Your task to perform on an android device: Do I have any events today? Image 0: 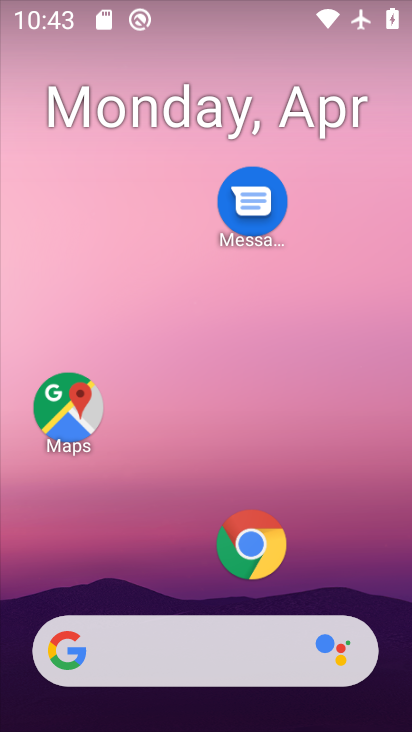
Step 0: press home button
Your task to perform on an android device: Do I have any events today? Image 1: 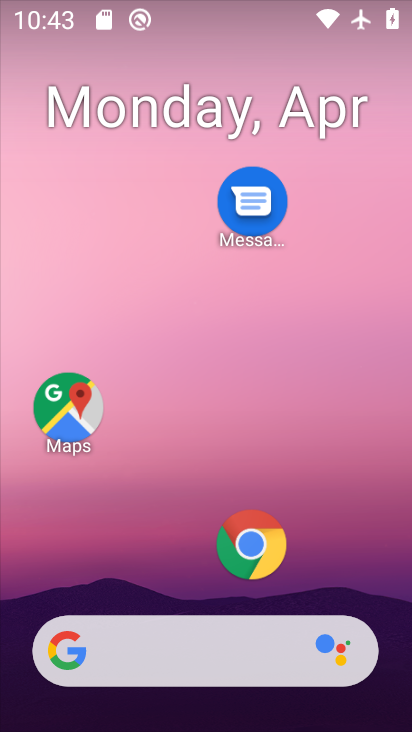
Step 1: drag from (197, 574) to (232, 161)
Your task to perform on an android device: Do I have any events today? Image 2: 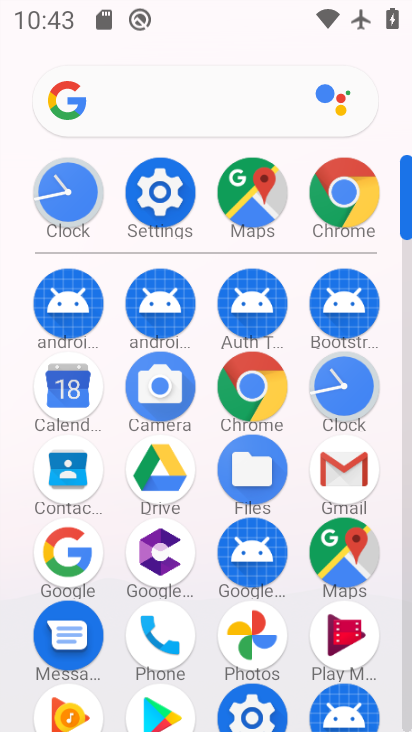
Step 2: click (66, 388)
Your task to perform on an android device: Do I have any events today? Image 3: 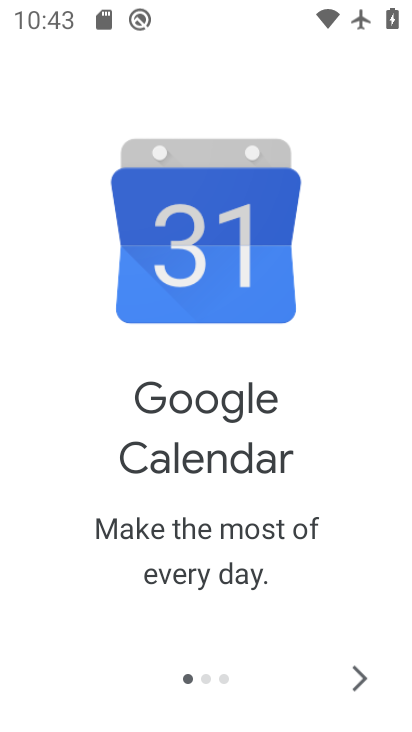
Step 3: click (346, 671)
Your task to perform on an android device: Do I have any events today? Image 4: 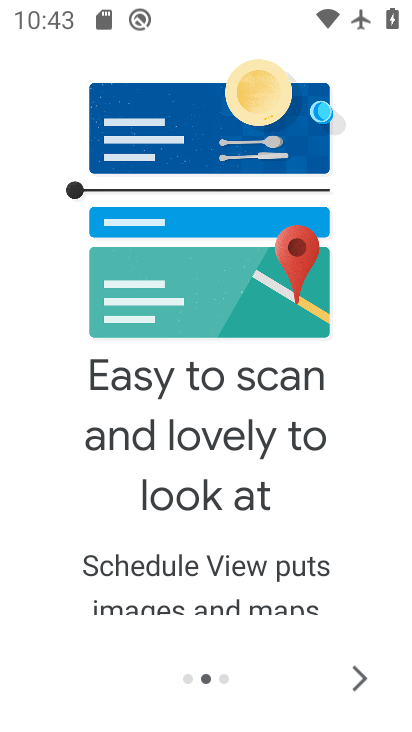
Step 4: click (346, 671)
Your task to perform on an android device: Do I have any events today? Image 5: 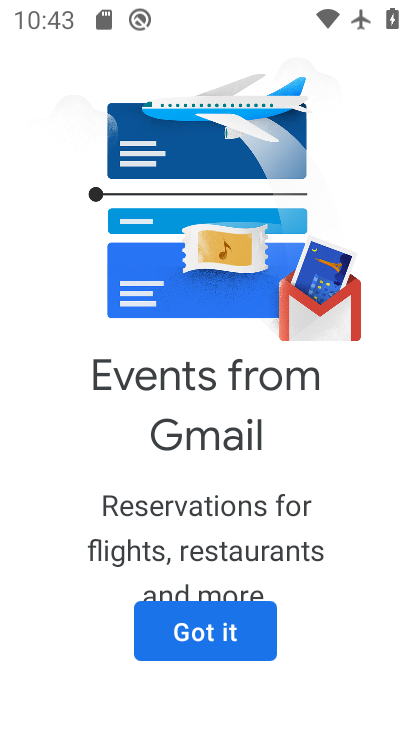
Step 5: click (216, 636)
Your task to perform on an android device: Do I have any events today? Image 6: 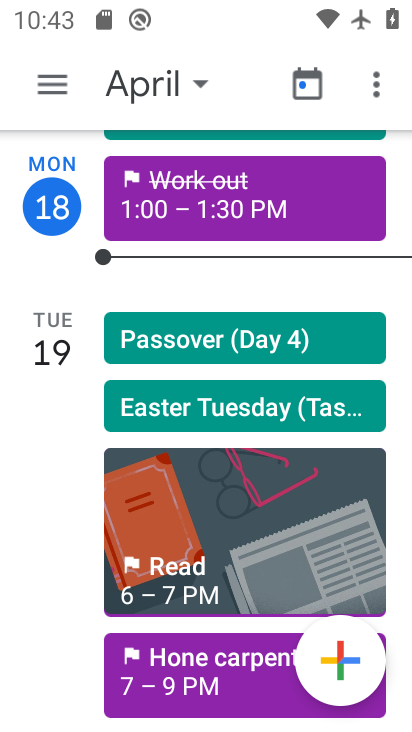
Step 6: click (52, 81)
Your task to perform on an android device: Do I have any events today? Image 7: 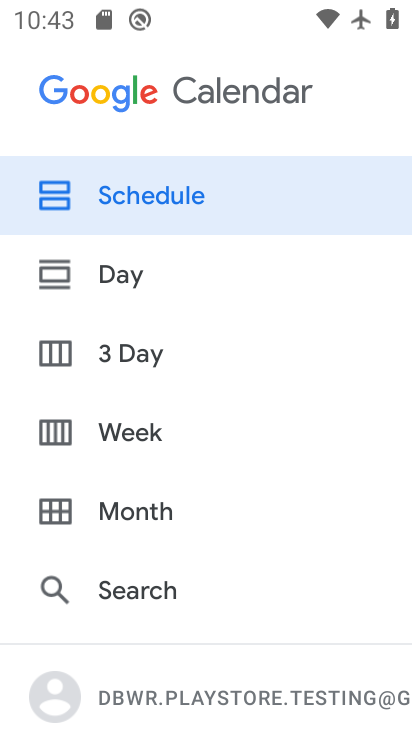
Step 7: drag from (135, 563) to (149, 209)
Your task to perform on an android device: Do I have any events today? Image 8: 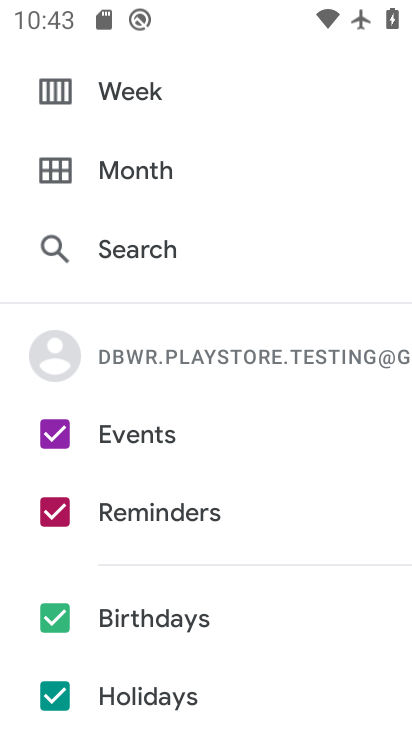
Step 8: click (48, 515)
Your task to perform on an android device: Do I have any events today? Image 9: 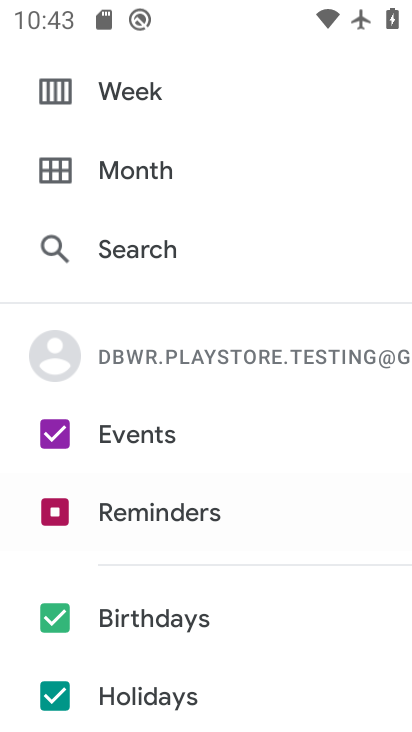
Step 9: click (57, 617)
Your task to perform on an android device: Do I have any events today? Image 10: 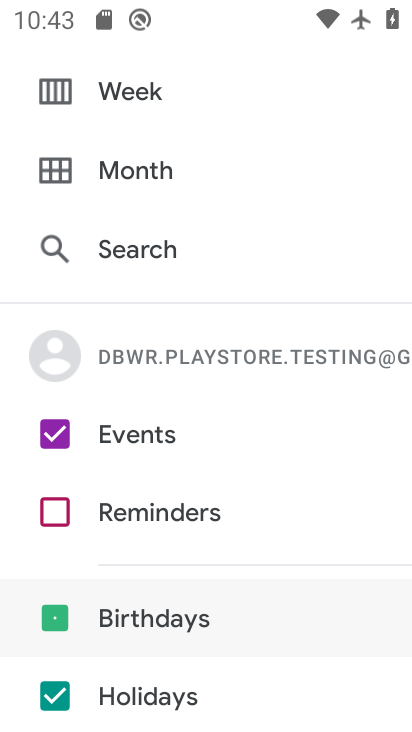
Step 10: click (60, 693)
Your task to perform on an android device: Do I have any events today? Image 11: 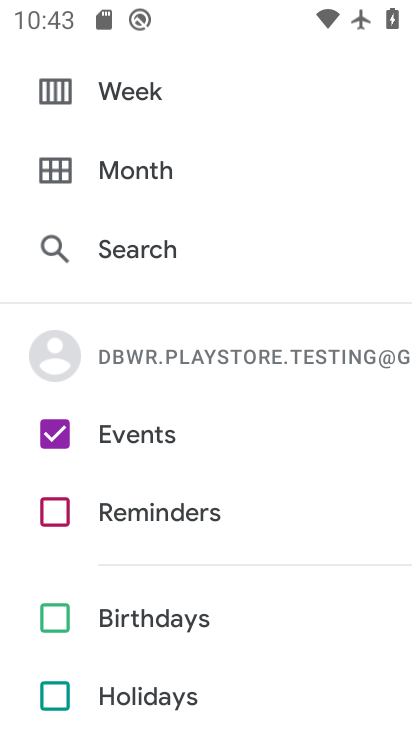
Step 11: drag from (139, 325) to (145, 521)
Your task to perform on an android device: Do I have any events today? Image 12: 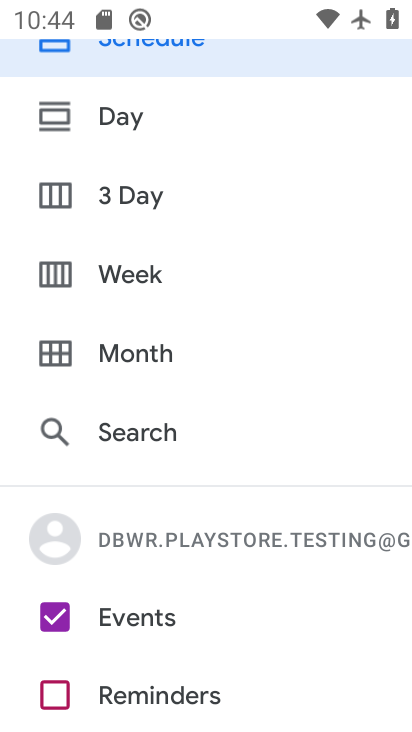
Step 12: drag from (98, 102) to (99, 413)
Your task to perform on an android device: Do I have any events today? Image 13: 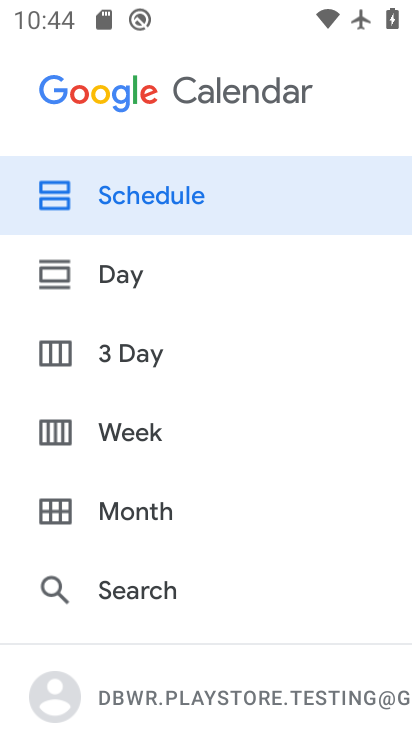
Step 13: click (93, 195)
Your task to perform on an android device: Do I have any events today? Image 14: 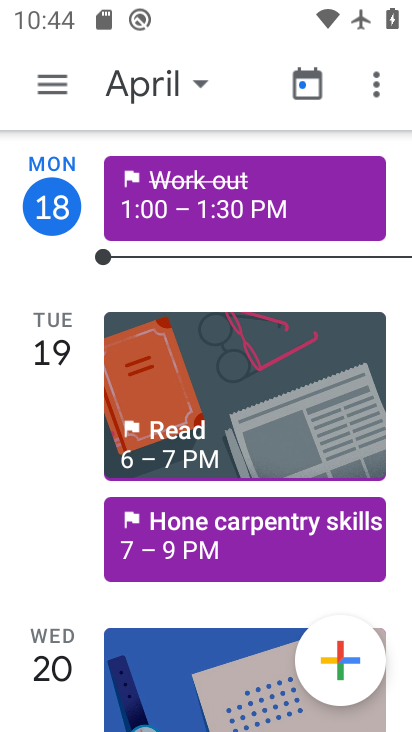
Step 14: drag from (61, 447) to (72, 208)
Your task to perform on an android device: Do I have any events today? Image 15: 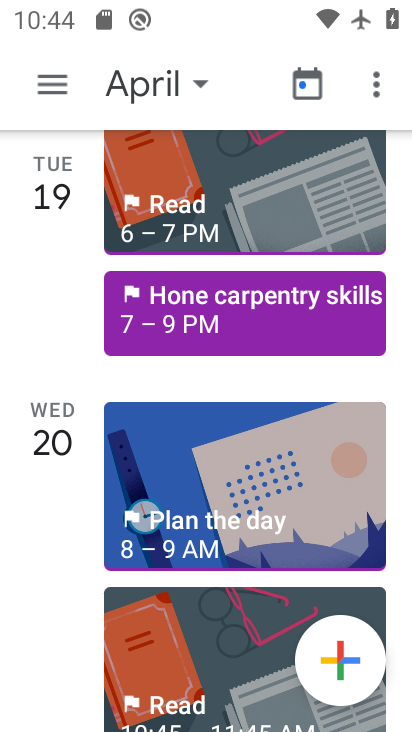
Step 15: drag from (76, 298) to (57, 538)
Your task to perform on an android device: Do I have any events today? Image 16: 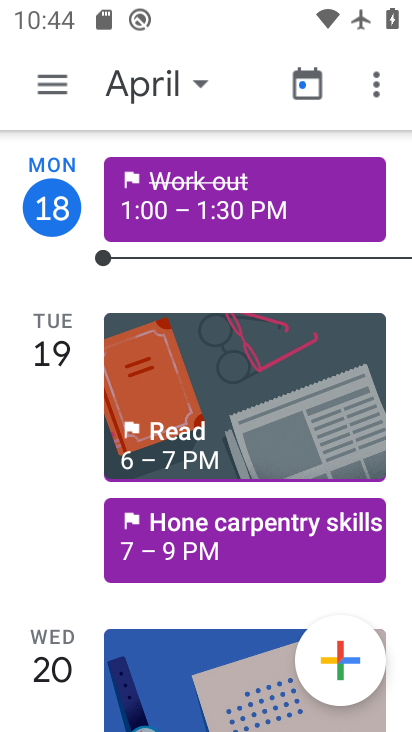
Step 16: click (55, 86)
Your task to perform on an android device: Do I have any events today? Image 17: 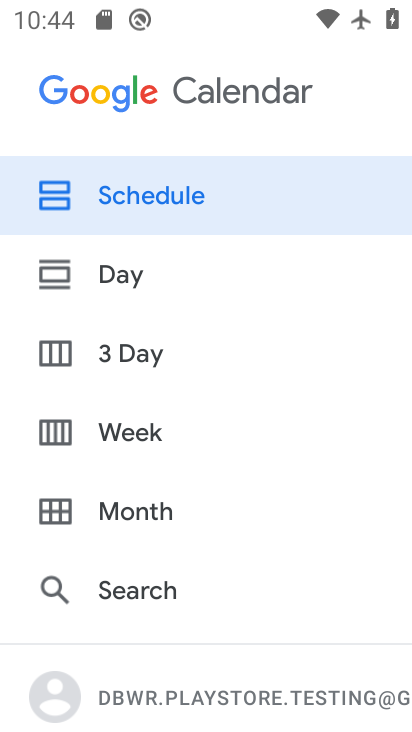
Step 17: click (86, 279)
Your task to perform on an android device: Do I have any events today? Image 18: 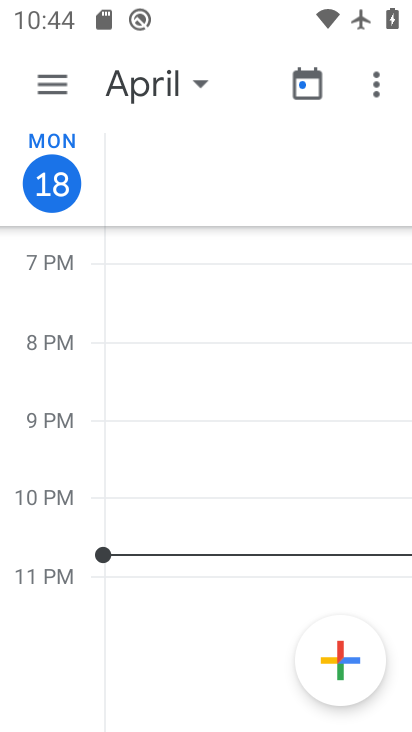
Step 18: task complete